Your task to perform on an android device: Open Amazon Image 0: 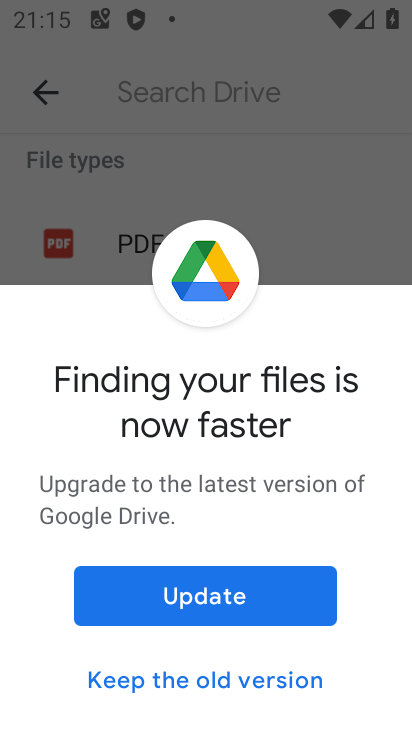
Step 0: press home button
Your task to perform on an android device: Open Amazon Image 1: 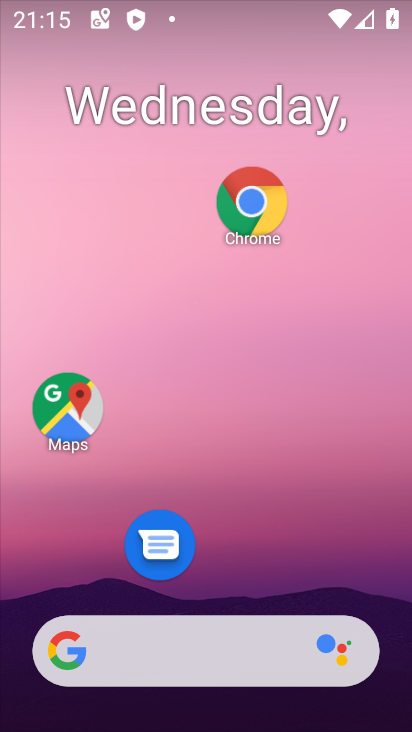
Step 1: click (251, 202)
Your task to perform on an android device: Open Amazon Image 2: 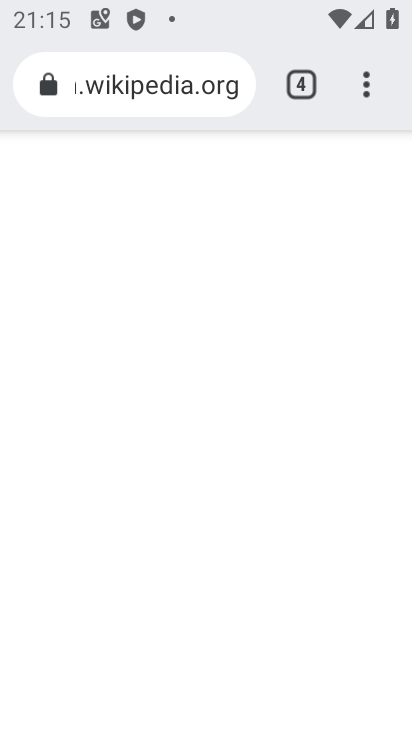
Step 2: click (305, 94)
Your task to perform on an android device: Open Amazon Image 3: 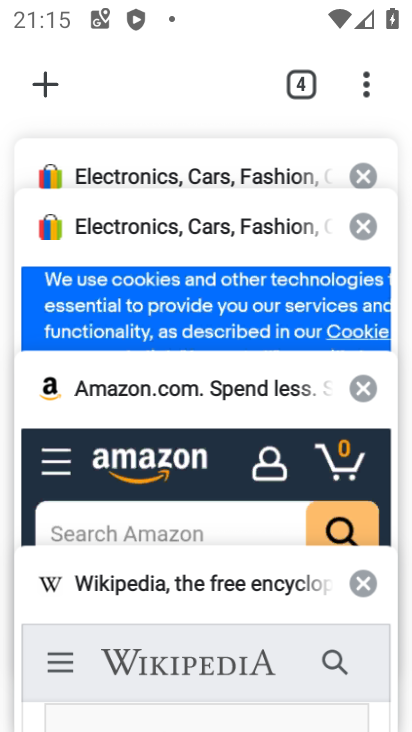
Step 3: click (37, 83)
Your task to perform on an android device: Open Amazon Image 4: 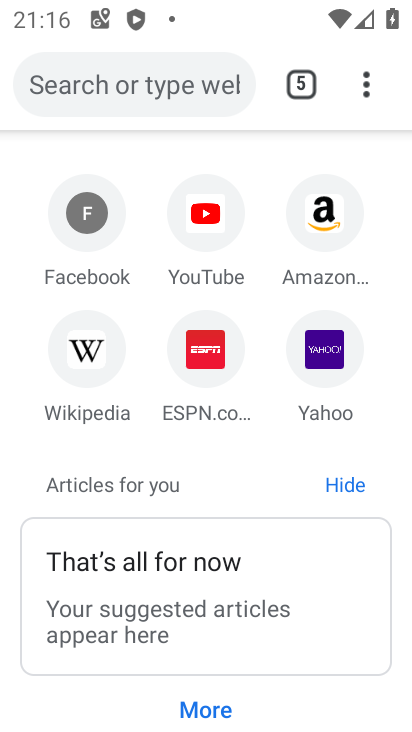
Step 4: click (334, 219)
Your task to perform on an android device: Open Amazon Image 5: 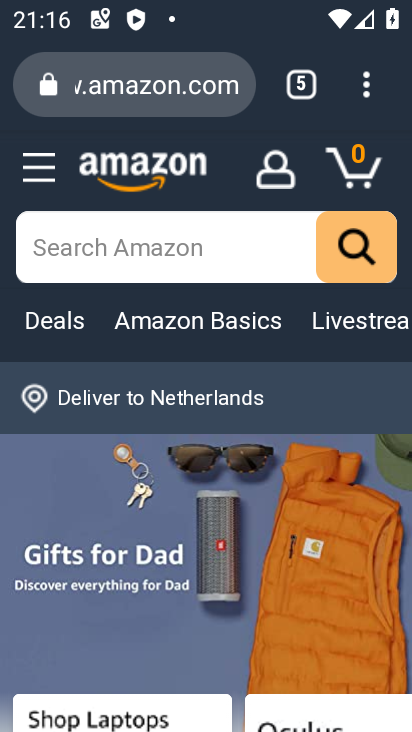
Step 5: task complete